Your task to perform on an android device: toggle data saver in the chrome app Image 0: 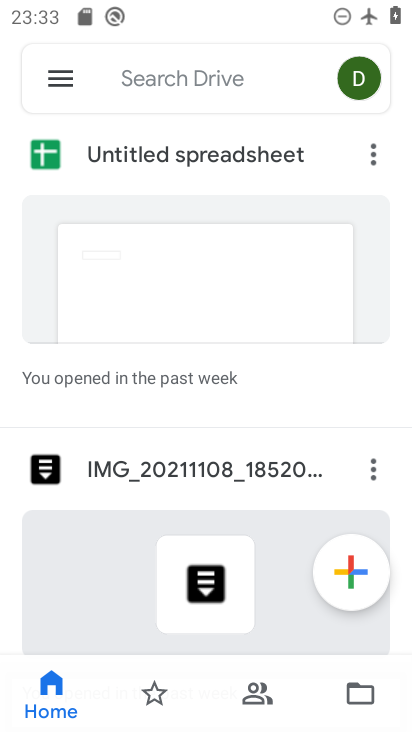
Step 0: press home button
Your task to perform on an android device: toggle data saver in the chrome app Image 1: 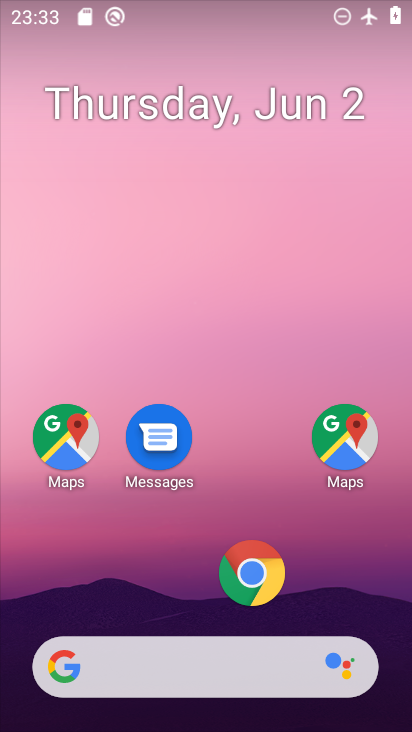
Step 1: click (252, 585)
Your task to perform on an android device: toggle data saver in the chrome app Image 2: 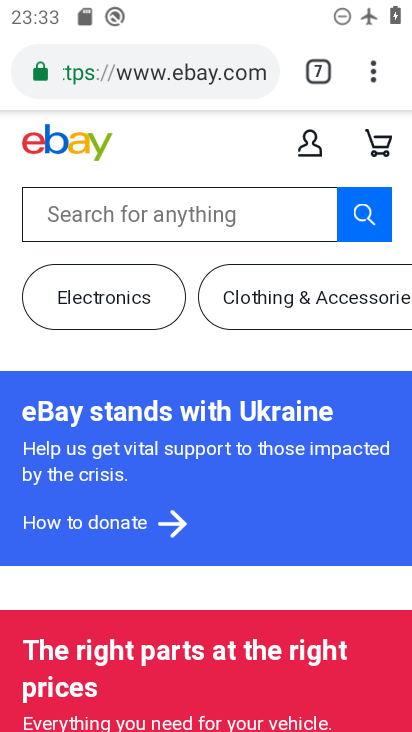
Step 2: click (360, 61)
Your task to perform on an android device: toggle data saver in the chrome app Image 3: 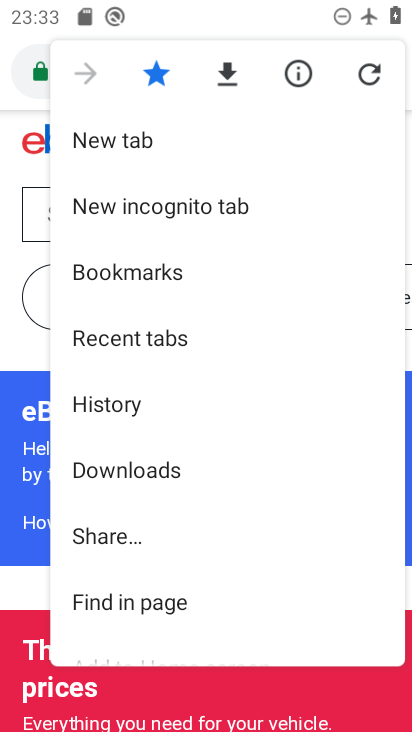
Step 3: drag from (247, 542) to (244, 124)
Your task to perform on an android device: toggle data saver in the chrome app Image 4: 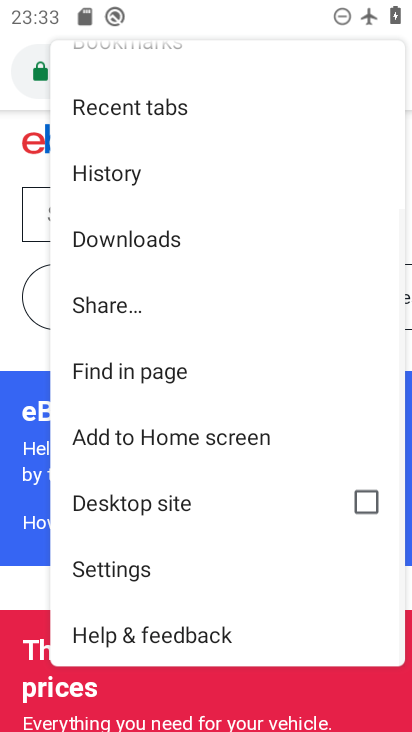
Step 4: click (142, 560)
Your task to perform on an android device: toggle data saver in the chrome app Image 5: 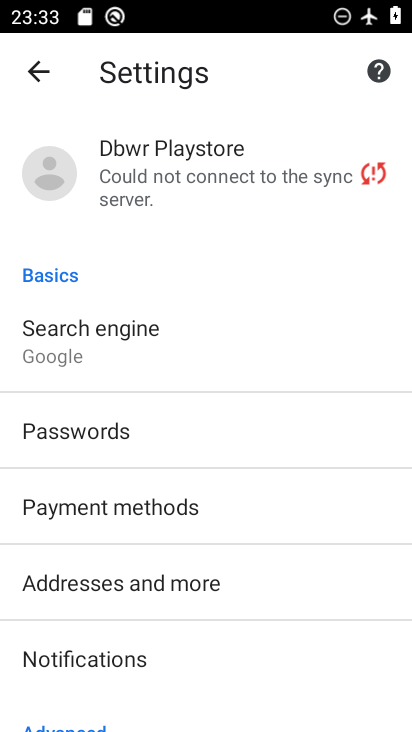
Step 5: drag from (129, 632) to (108, 267)
Your task to perform on an android device: toggle data saver in the chrome app Image 6: 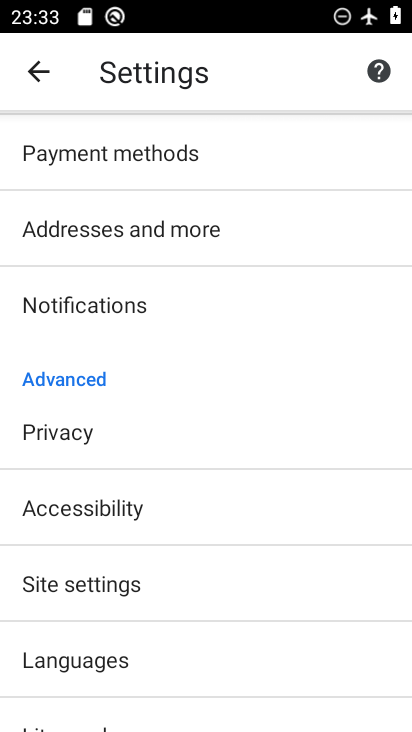
Step 6: click (159, 419)
Your task to perform on an android device: toggle data saver in the chrome app Image 7: 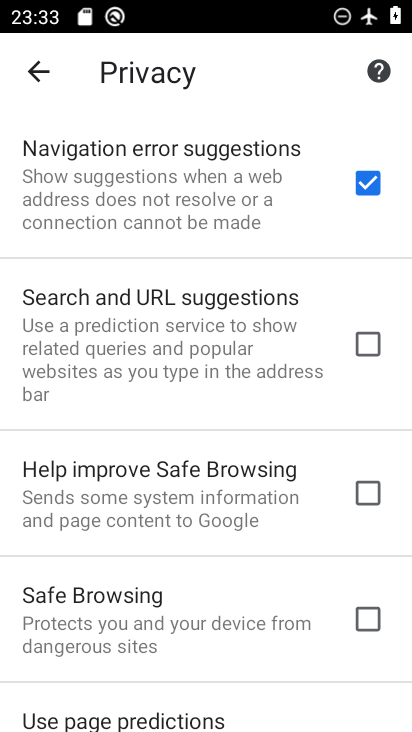
Step 7: drag from (164, 466) to (205, 243)
Your task to perform on an android device: toggle data saver in the chrome app Image 8: 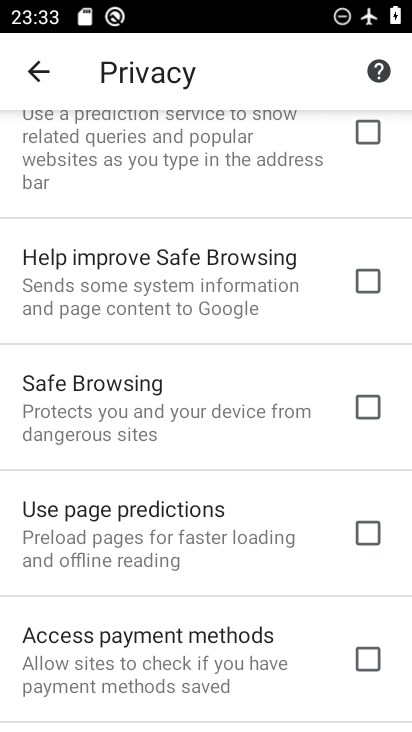
Step 8: drag from (151, 566) to (212, 217)
Your task to perform on an android device: toggle data saver in the chrome app Image 9: 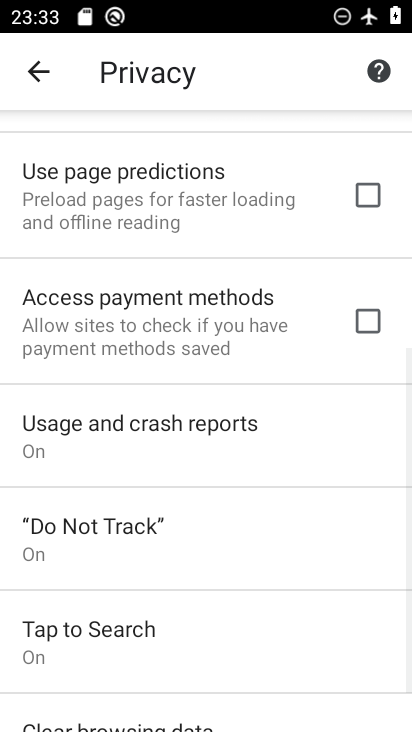
Step 9: drag from (119, 575) to (167, 308)
Your task to perform on an android device: toggle data saver in the chrome app Image 10: 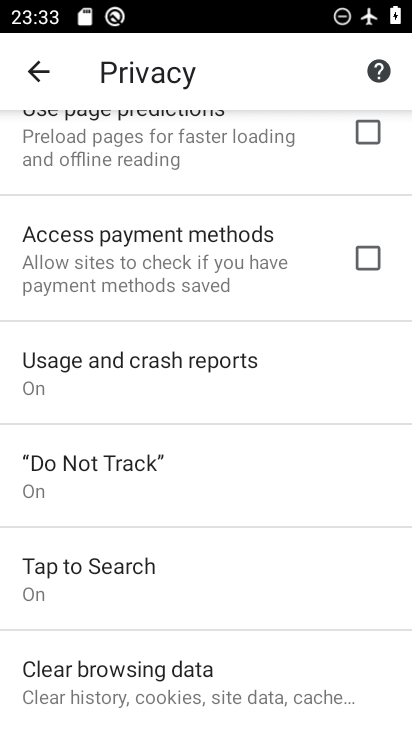
Step 10: press back button
Your task to perform on an android device: toggle data saver in the chrome app Image 11: 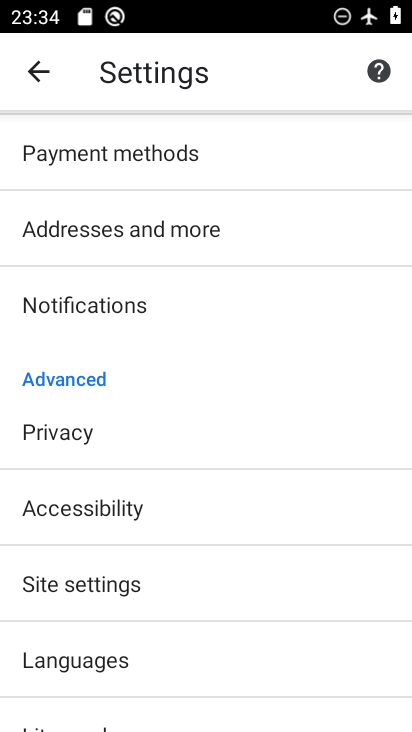
Step 11: click (114, 508)
Your task to perform on an android device: toggle data saver in the chrome app Image 12: 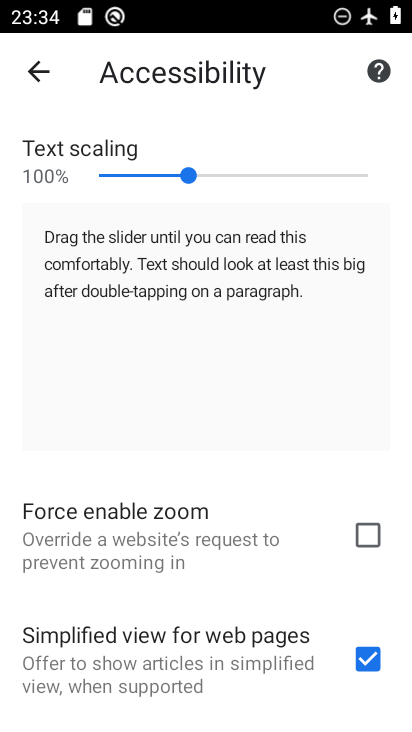
Step 12: task complete